Your task to perform on an android device: Toggle the flashlight Image 0: 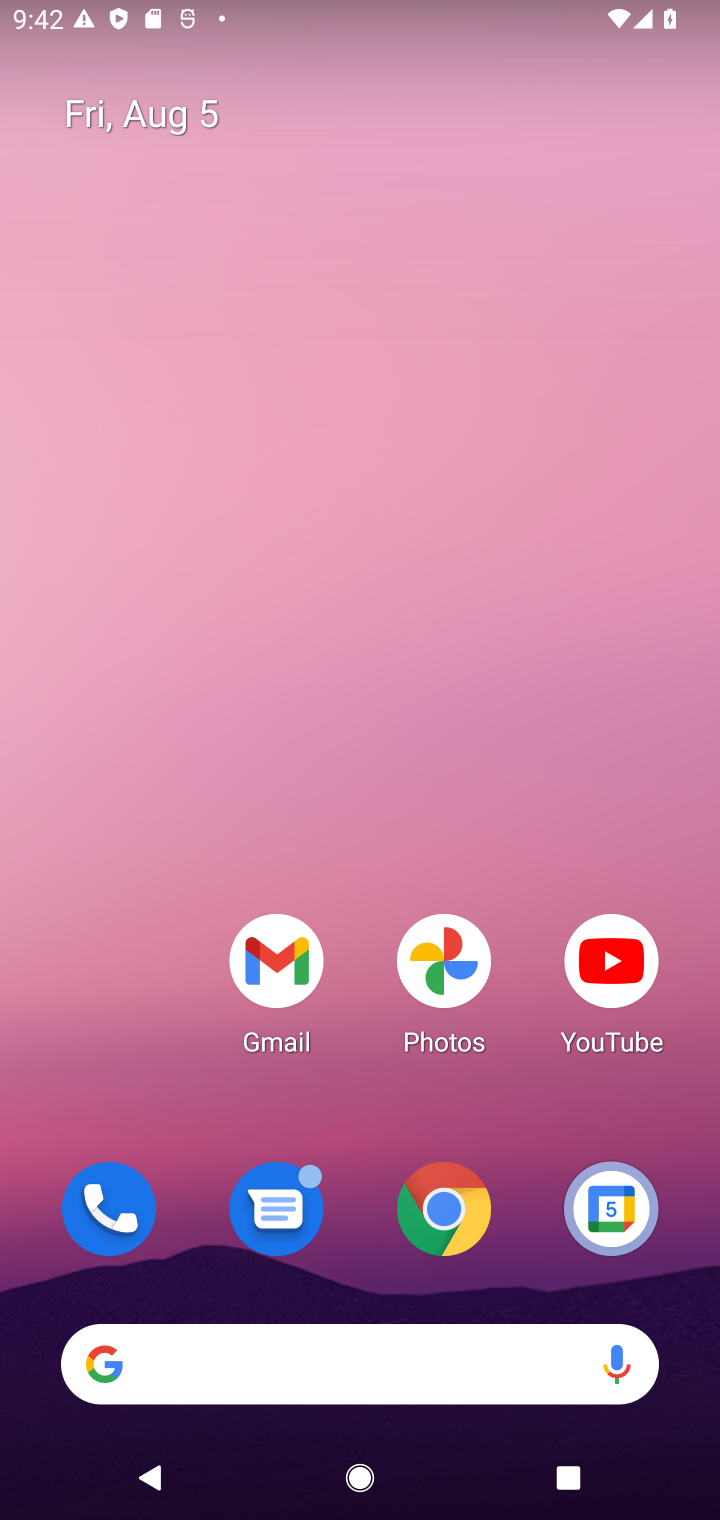
Step 0: drag from (376, 1210) to (676, 372)
Your task to perform on an android device: Toggle the flashlight Image 1: 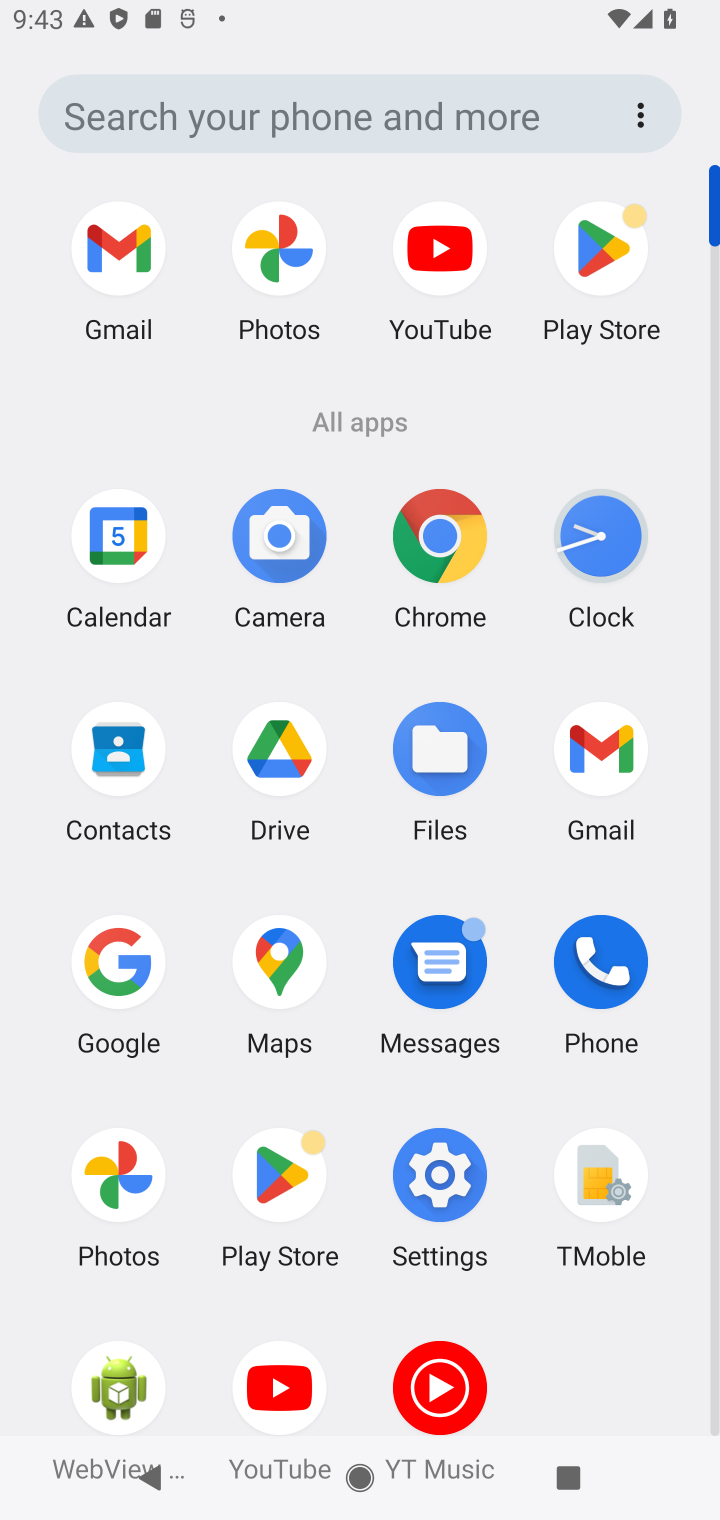
Step 1: click (448, 1186)
Your task to perform on an android device: Toggle the flashlight Image 2: 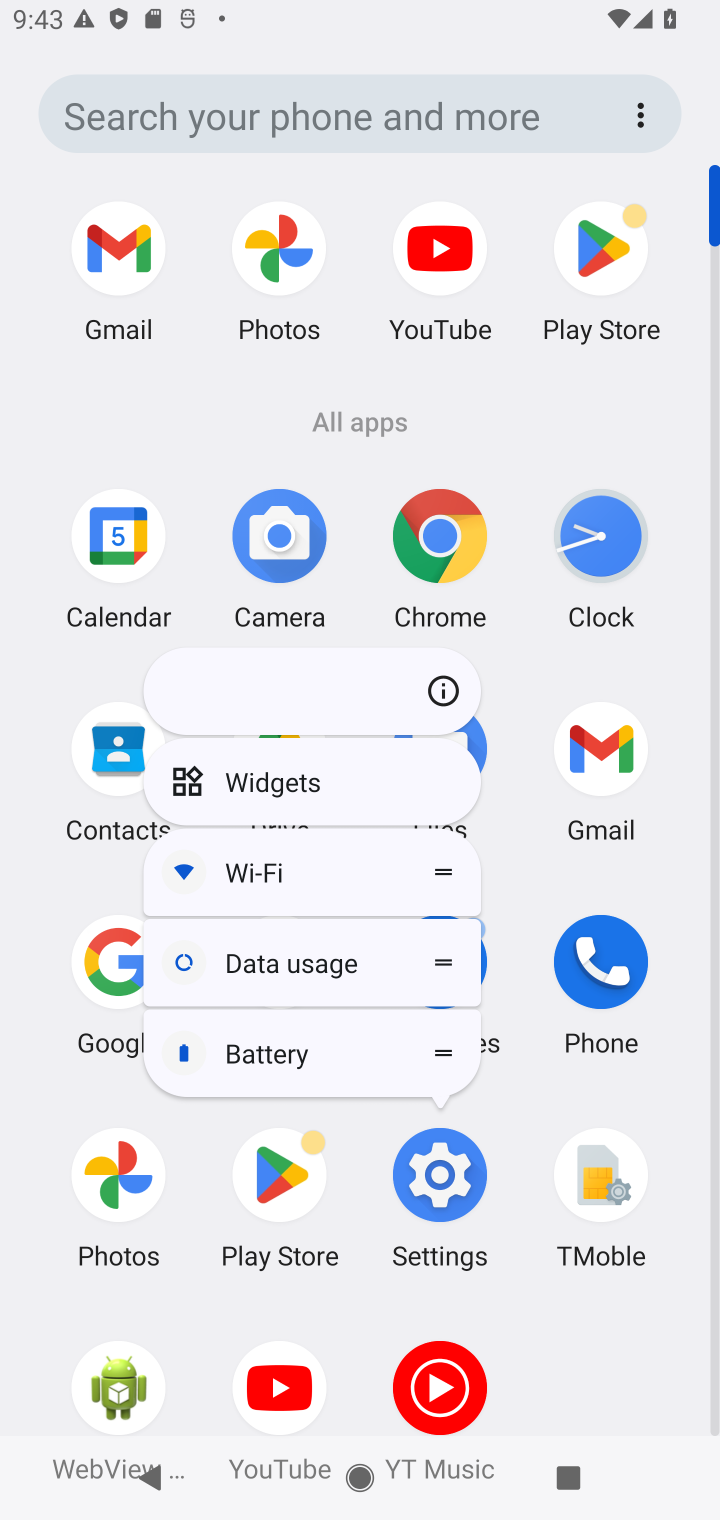
Step 2: click (444, 692)
Your task to perform on an android device: Toggle the flashlight Image 3: 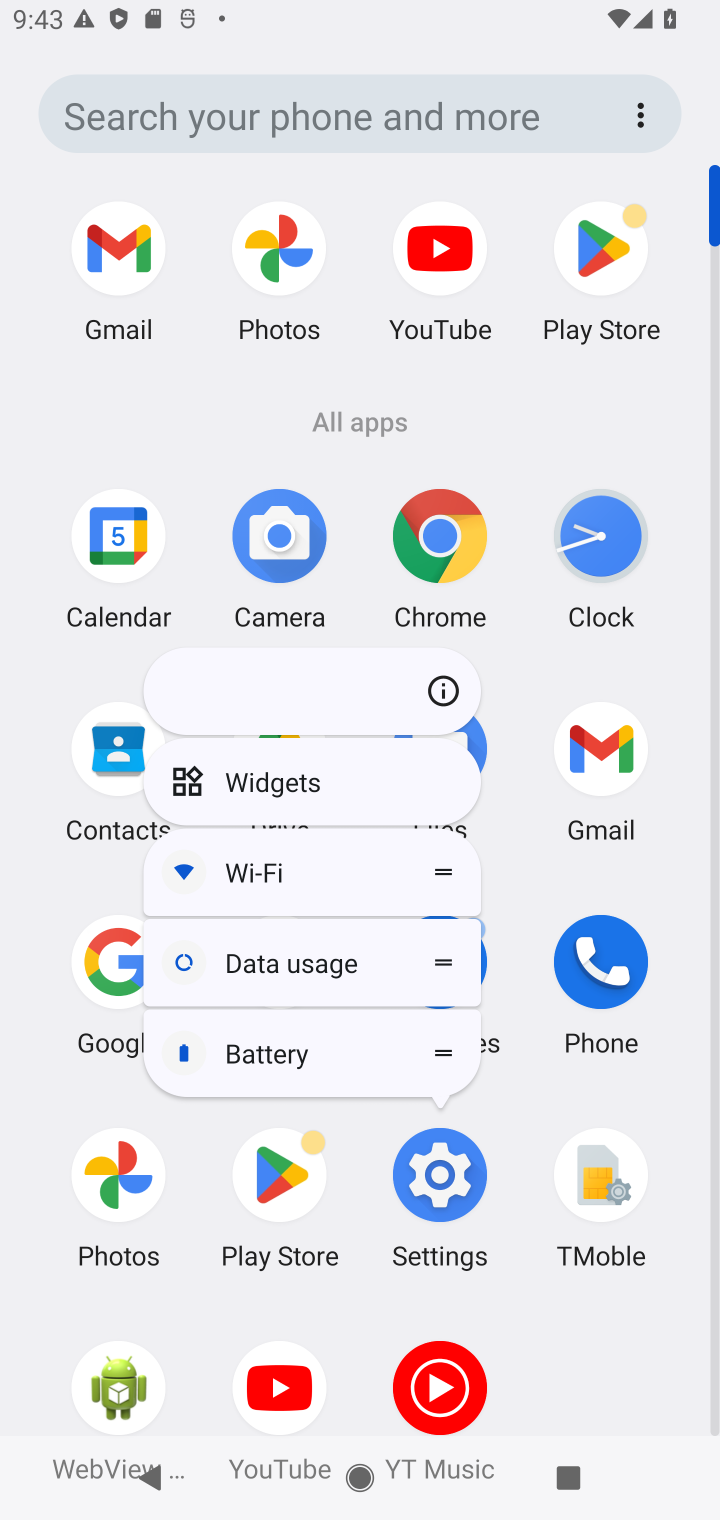
Step 3: click (458, 680)
Your task to perform on an android device: Toggle the flashlight Image 4: 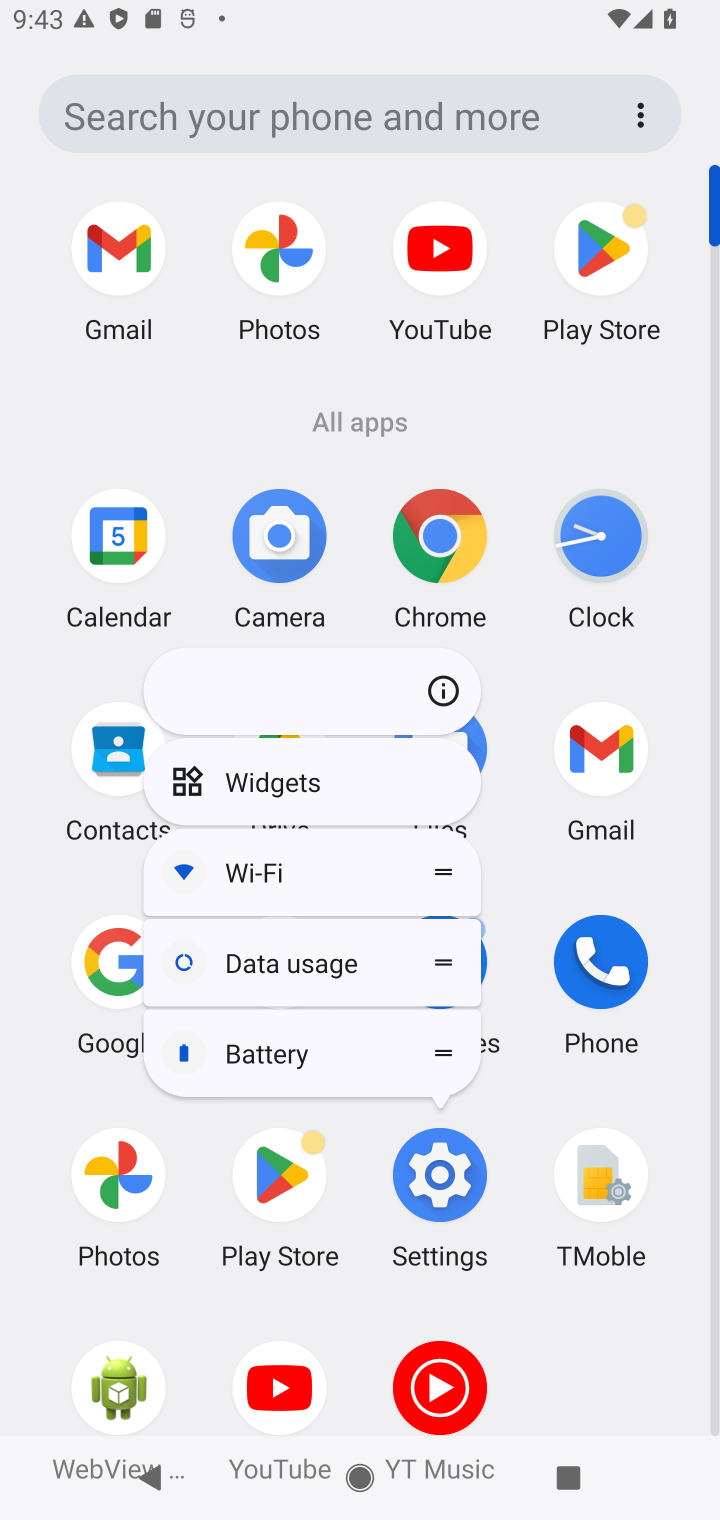
Step 4: click (436, 1150)
Your task to perform on an android device: Toggle the flashlight Image 5: 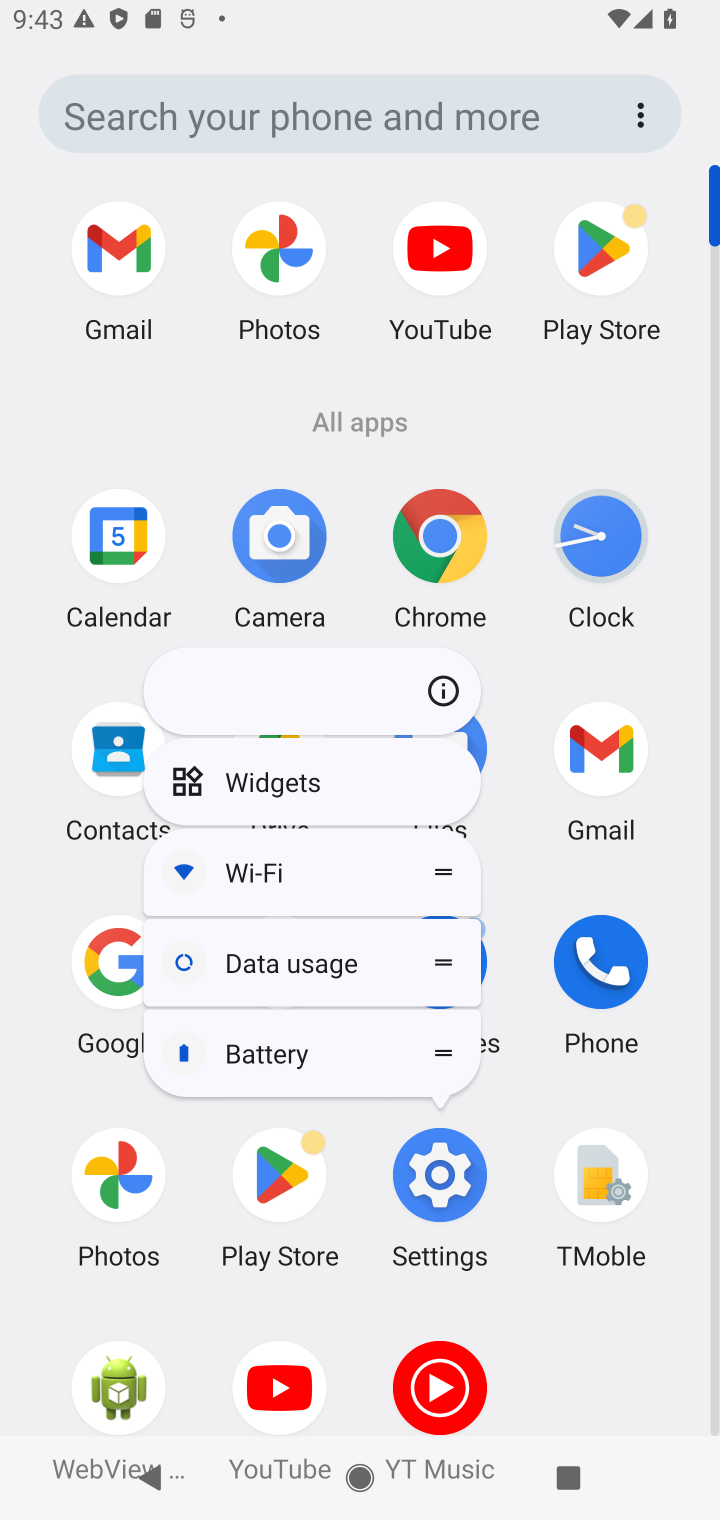
Step 5: click (453, 679)
Your task to perform on an android device: Toggle the flashlight Image 6: 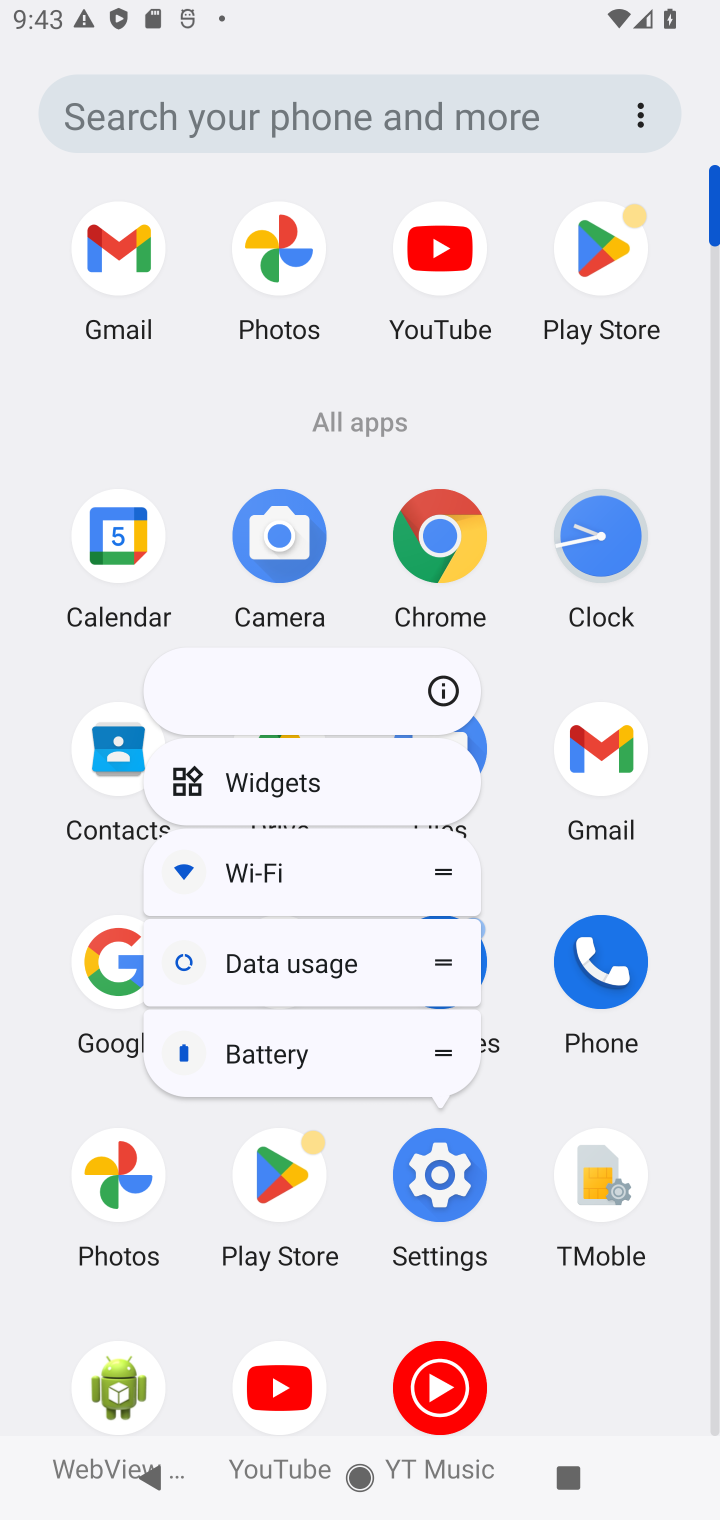
Step 6: click (434, 711)
Your task to perform on an android device: Toggle the flashlight Image 7: 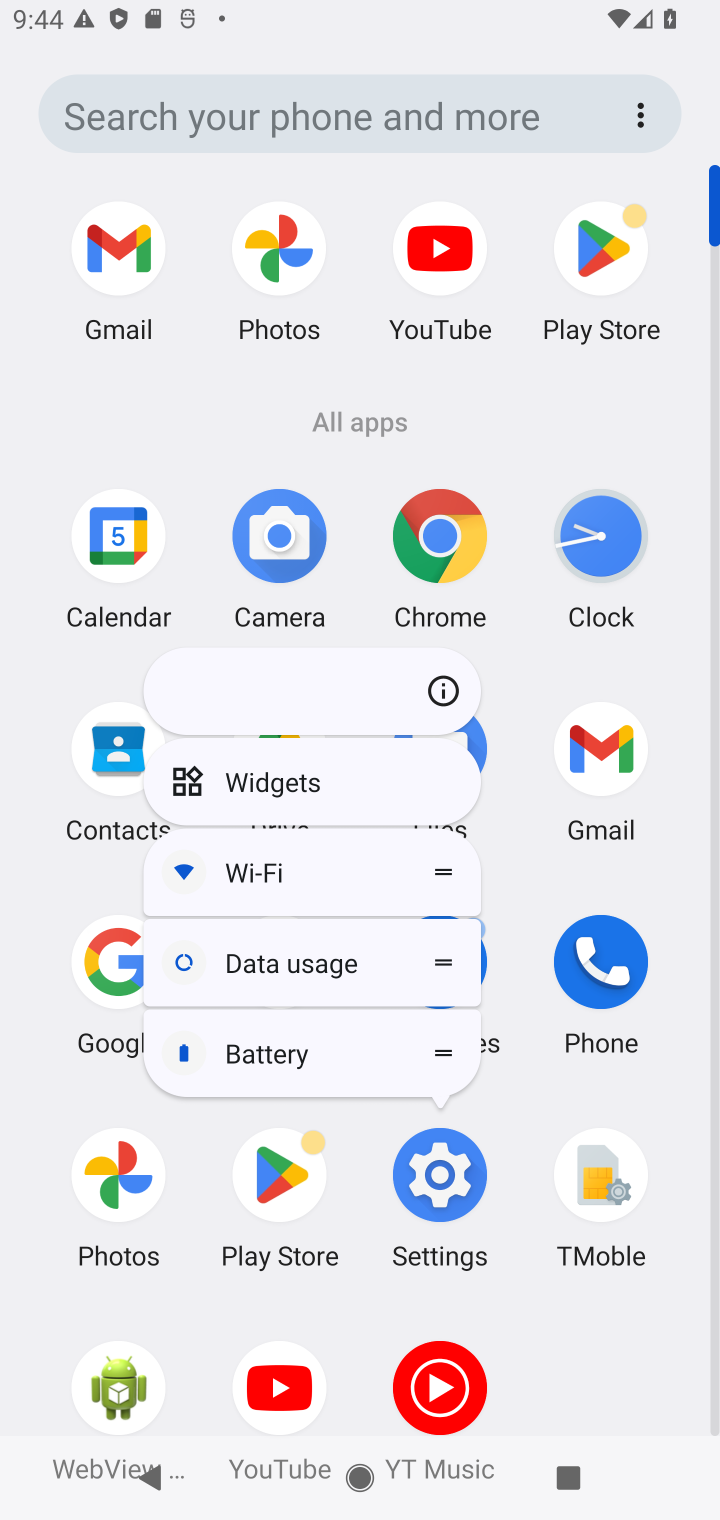
Step 7: click (437, 665)
Your task to perform on an android device: Toggle the flashlight Image 8: 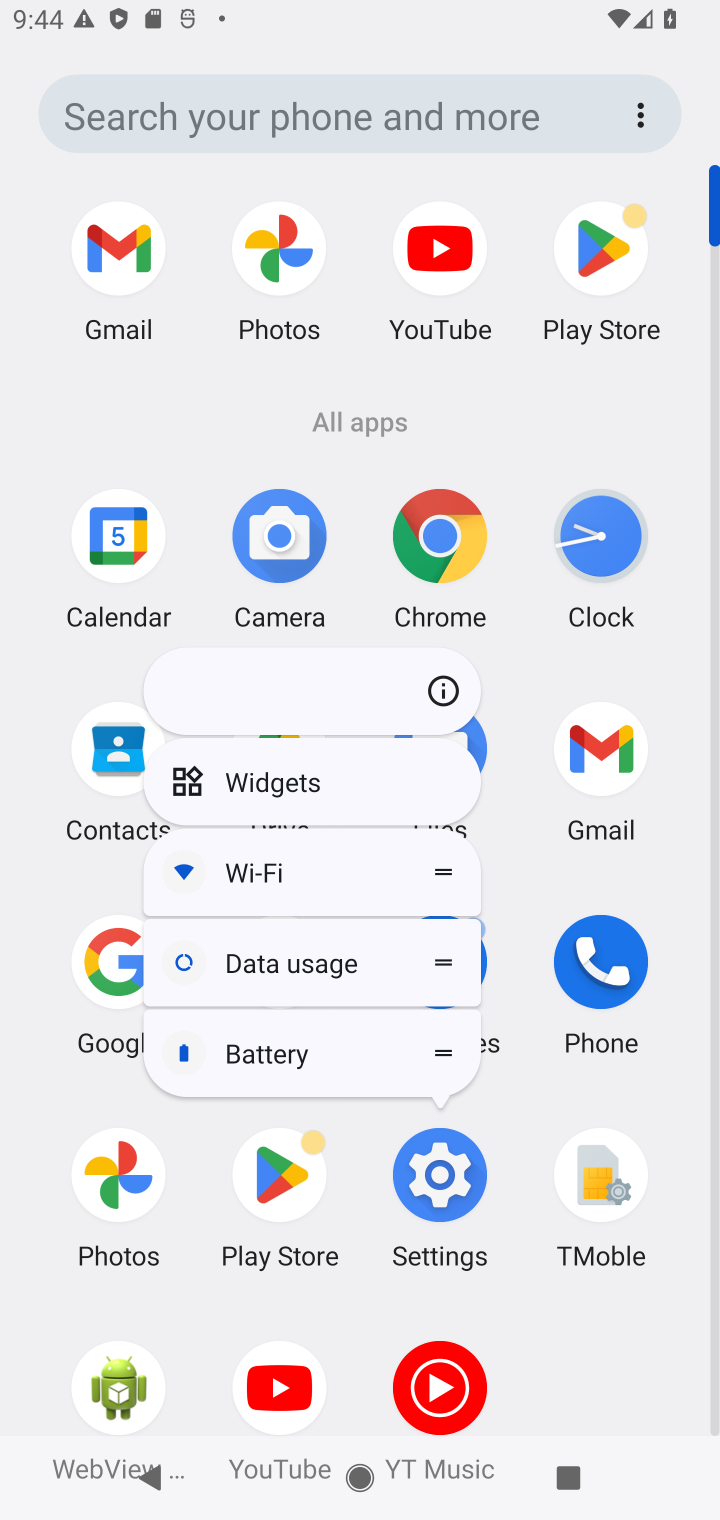
Step 8: click (457, 698)
Your task to perform on an android device: Toggle the flashlight Image 9: 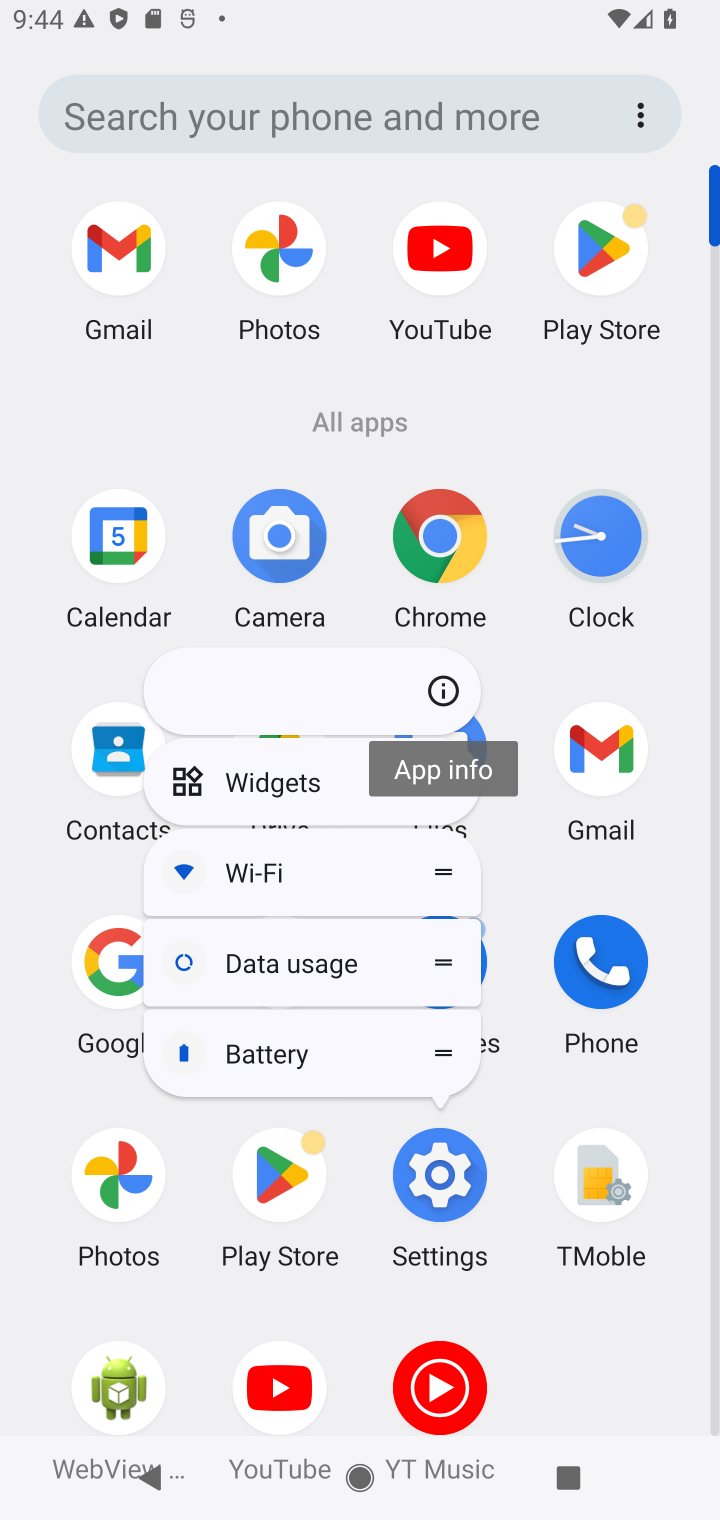
Step 9: click (447, 681)
Your task to perform on an android device: Toggle the flashlight Image 10: 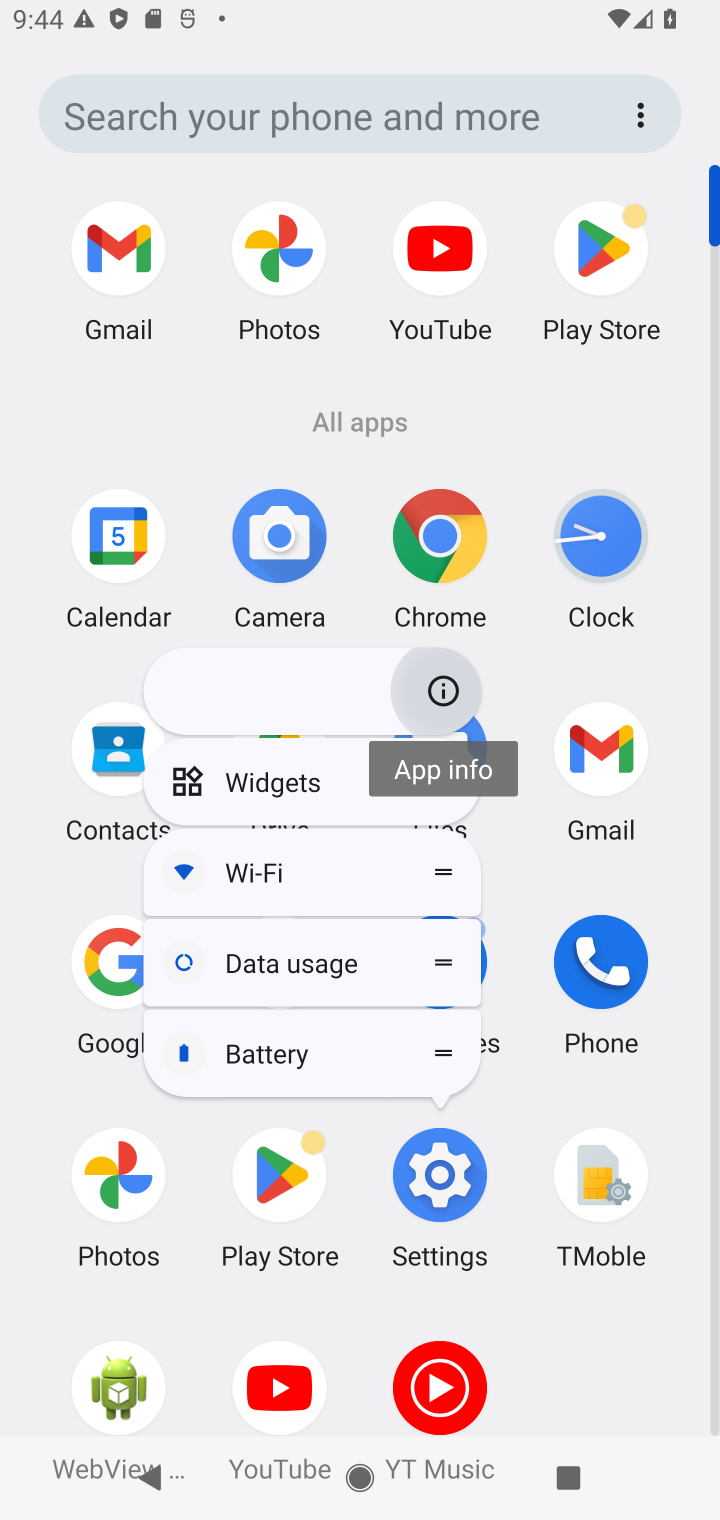
Step 10: drag from (435, 1206) to (452, 1105)
Your task to perform on an android device: Toggle the flashlight Image 11: 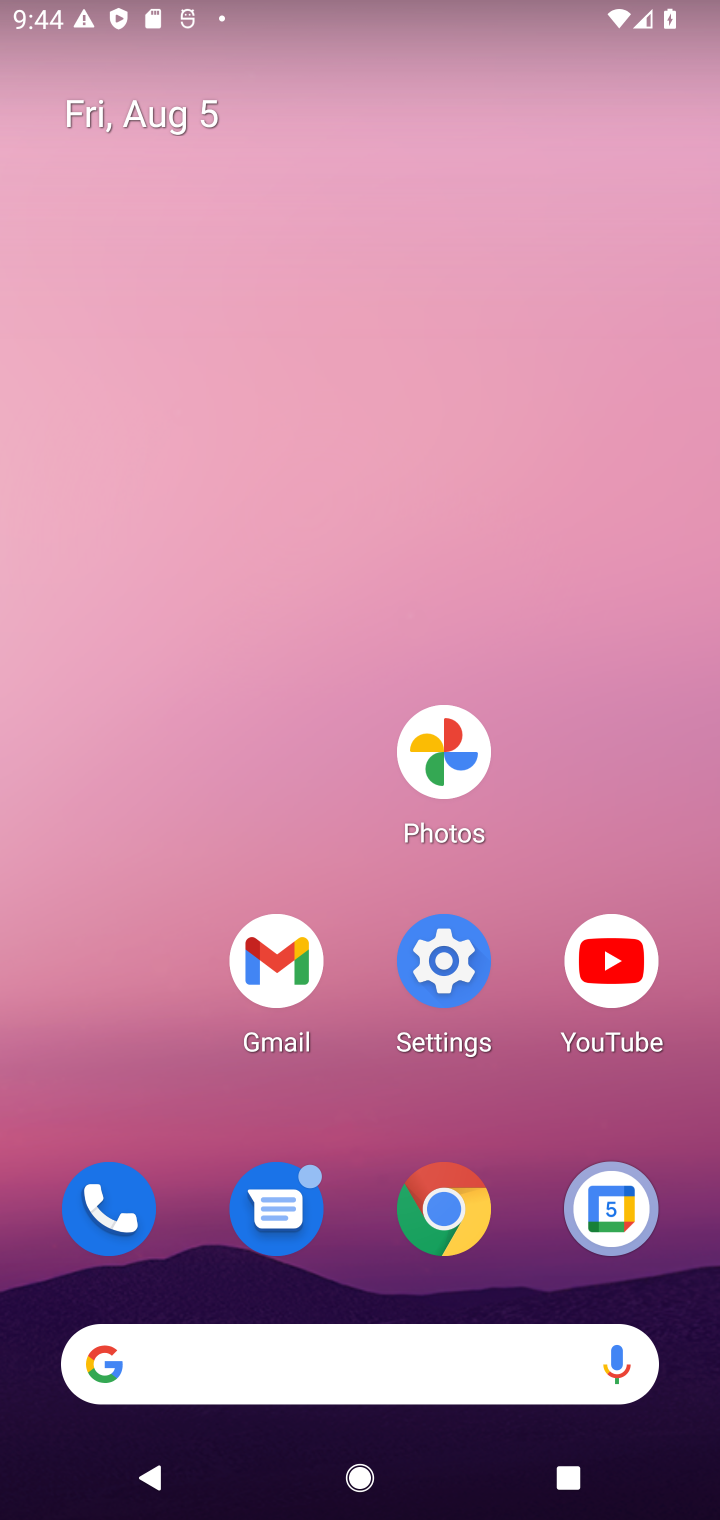
Step 11: click (425, 961)
Your task to perform on an android device: Toggle the flashlight Image 12: 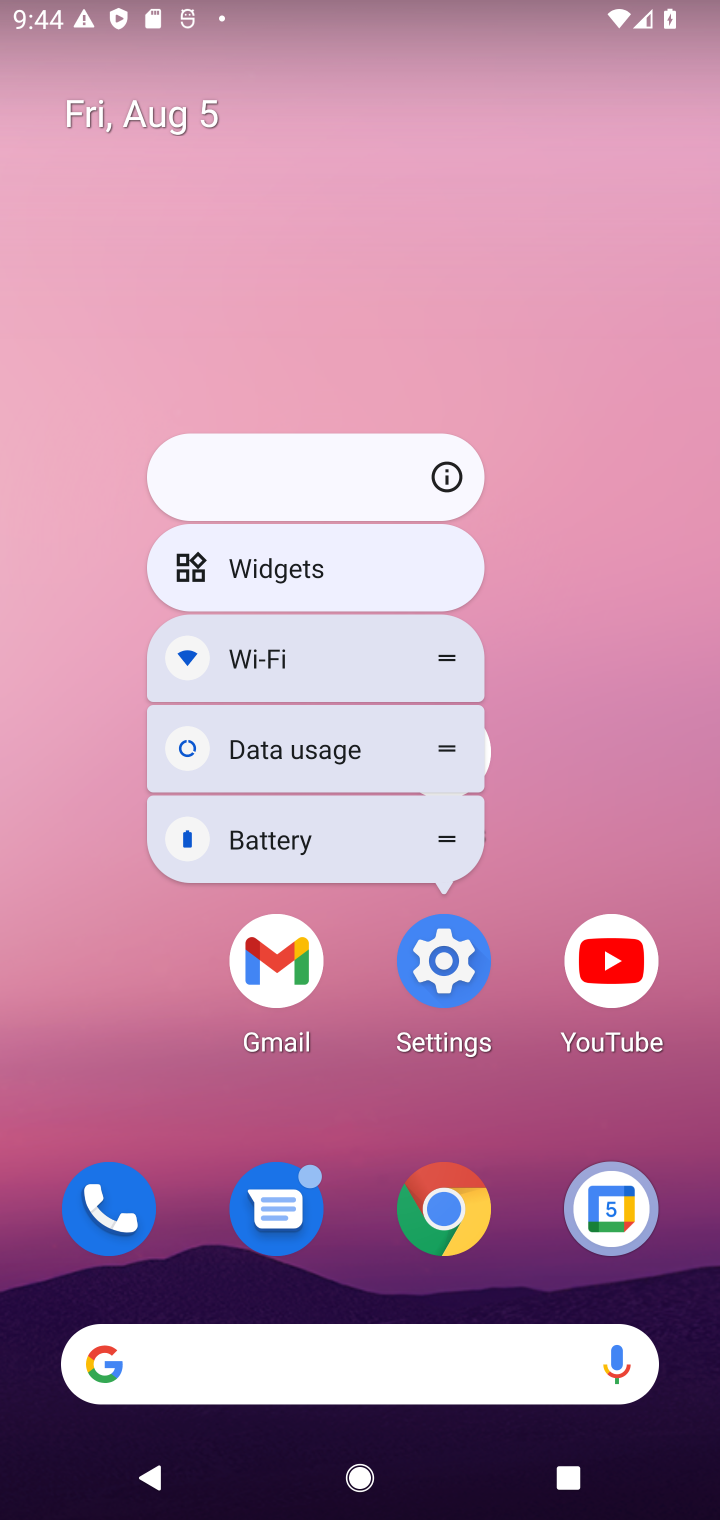
Step 12: click (448, 482)
Your task to perform on an android device: Toggle the flashlight Image 13: 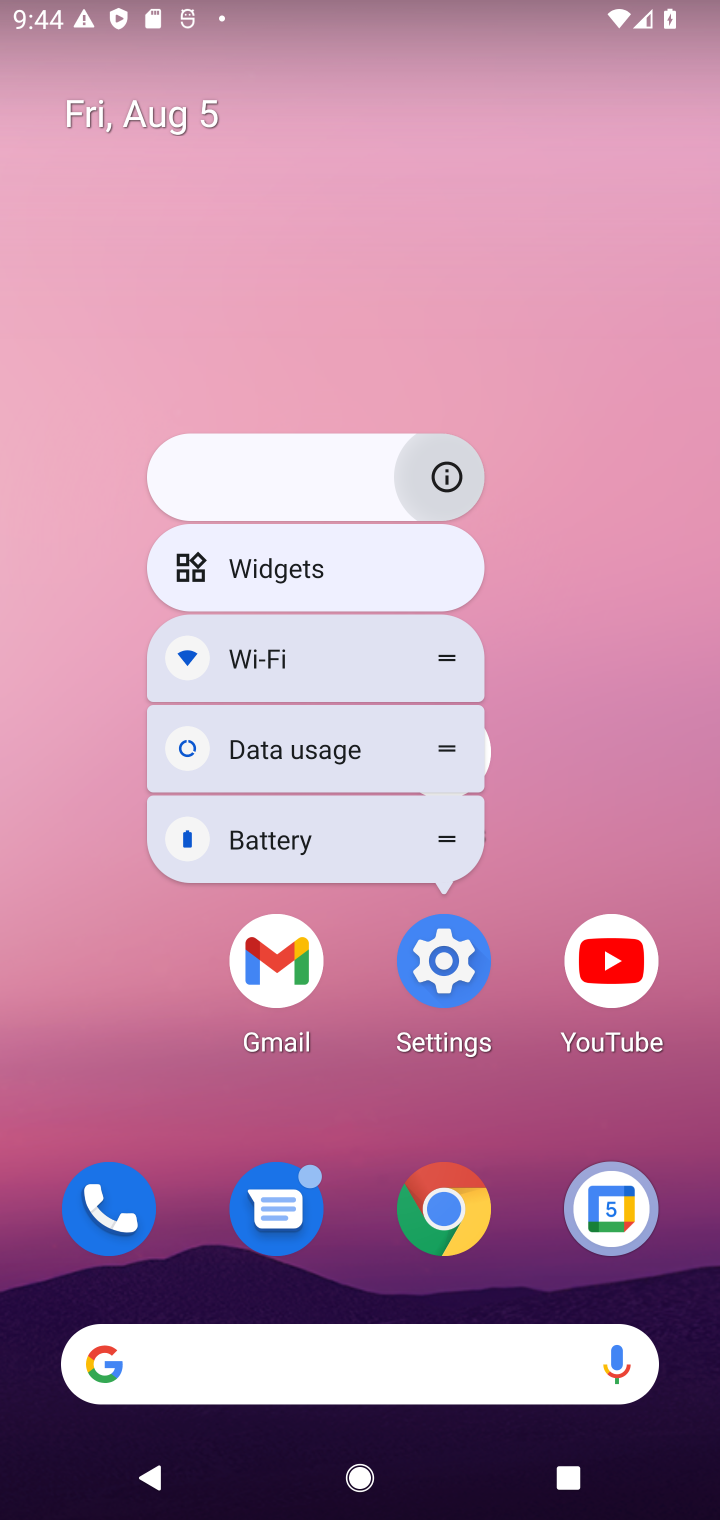
Step 13: click (448, 475)
Your task to perform on an android device: Toggle the flashlight Image 14: 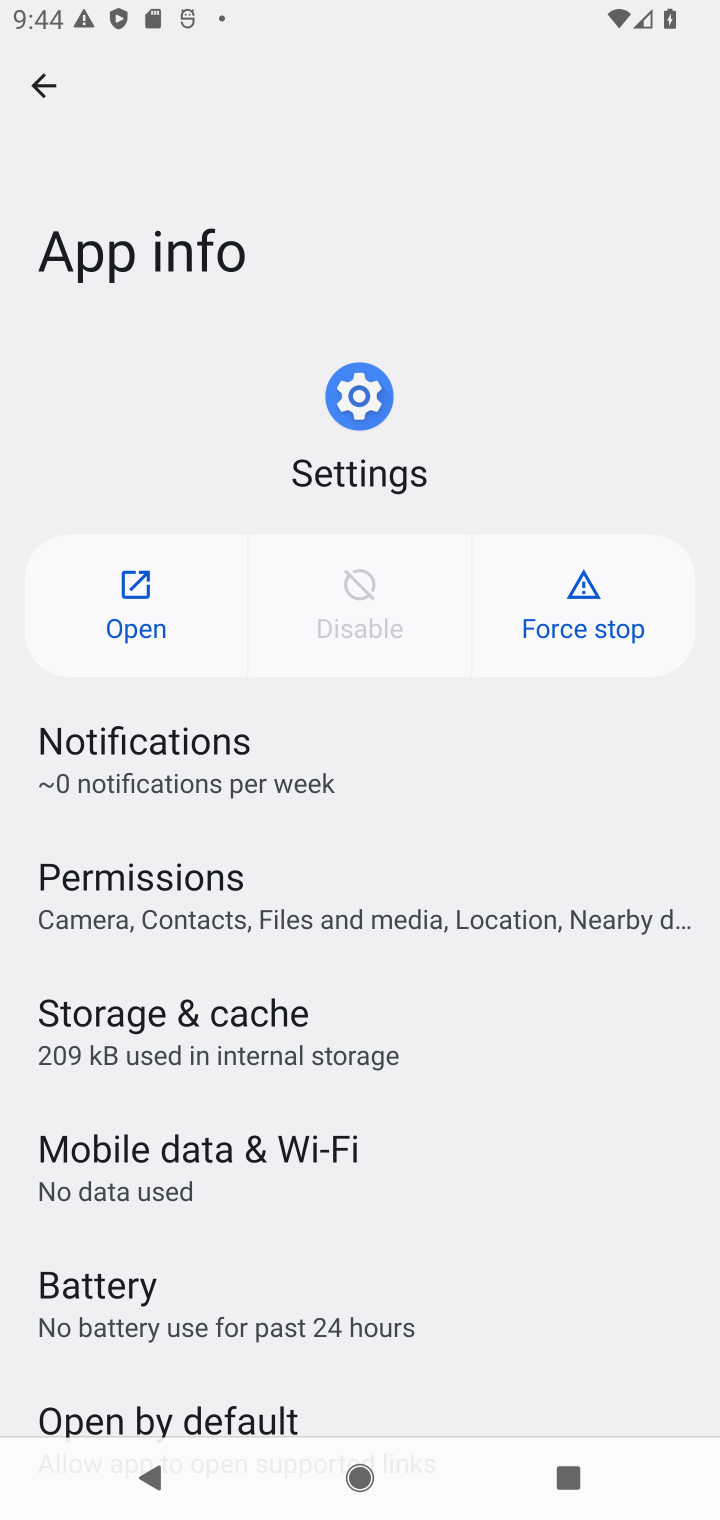
Step 14: click (140, 589)
Your task to perform on an android device: Toggle the flashlight Image 15: 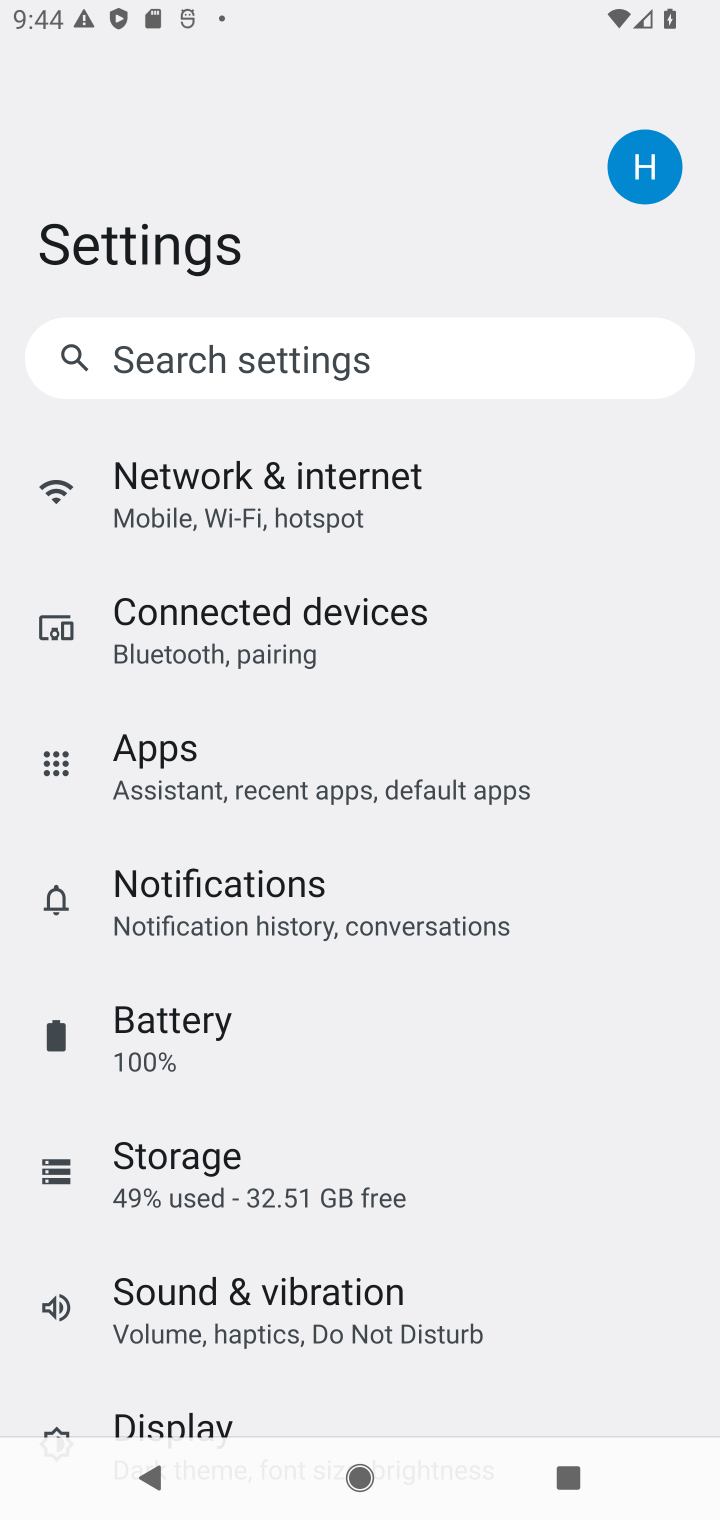
Step 15: click (225, 358)
Your task to perform on an android device: Toggle the flashlight Image 16: 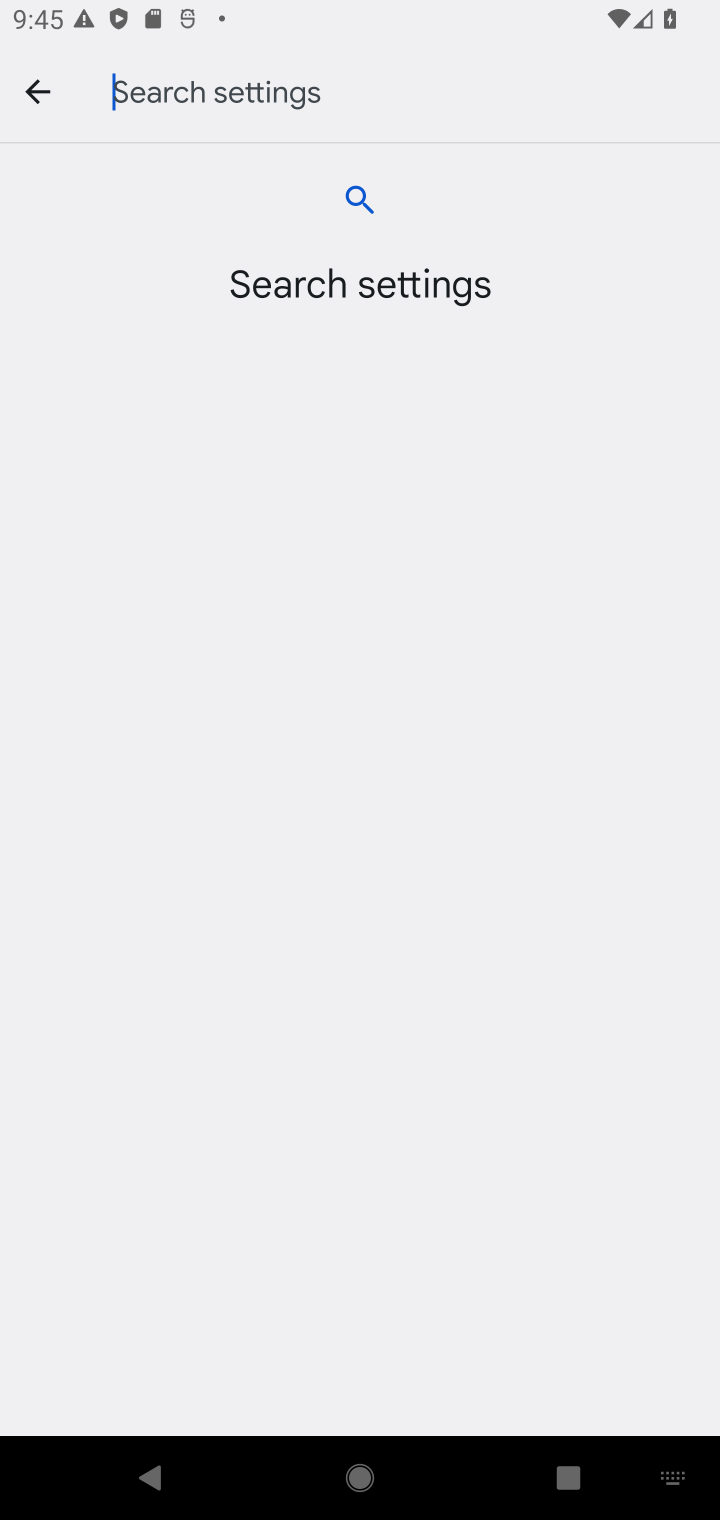
Step 16: type "flashlight"
Your task to perform on an android device: Toggle the flashlight Image 17: 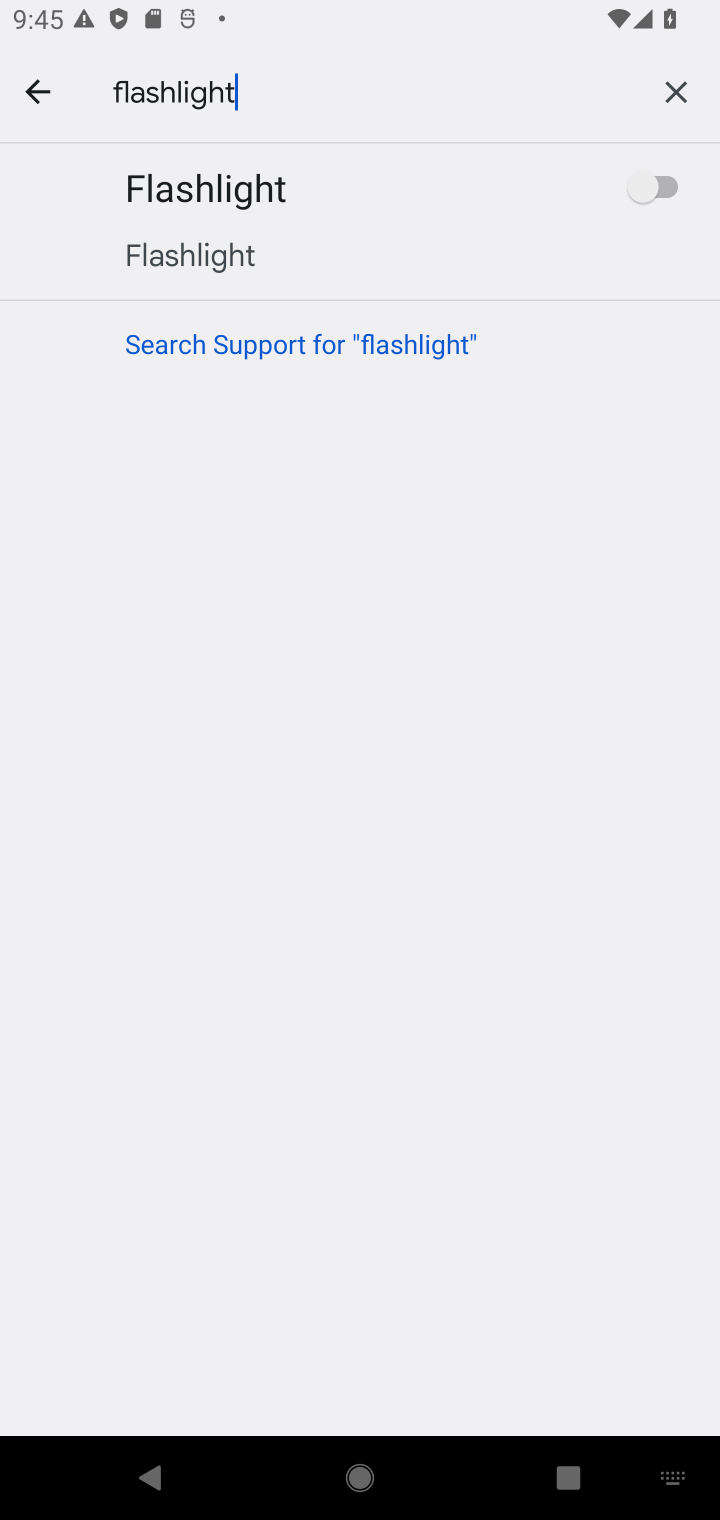
Step 17: click (200, 117)
Your task to perform on an android device: Toggle the flashlight Image 18: 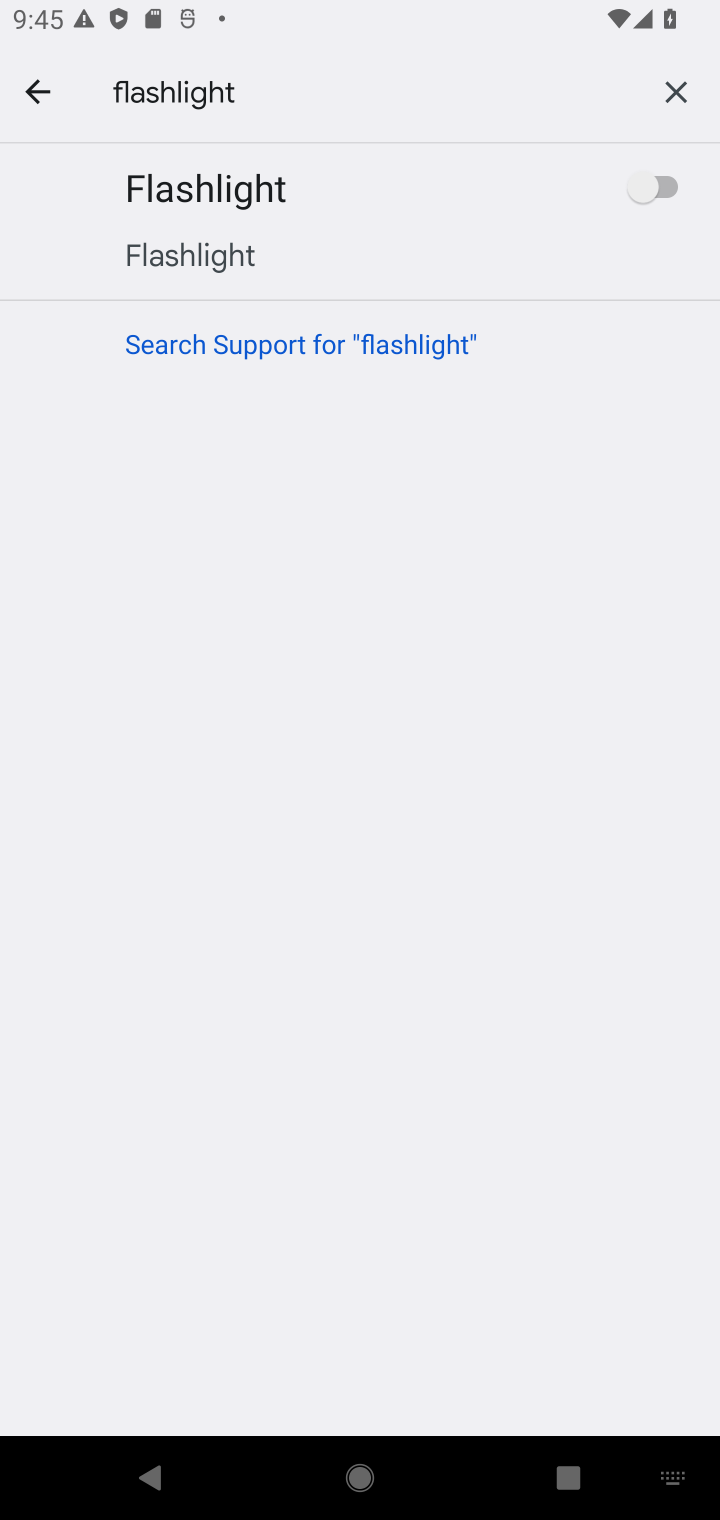
Step 18: drag from (331, 724) to (325, 556)
Your task to perform on an android device: Toggle the flashlight Image 19: 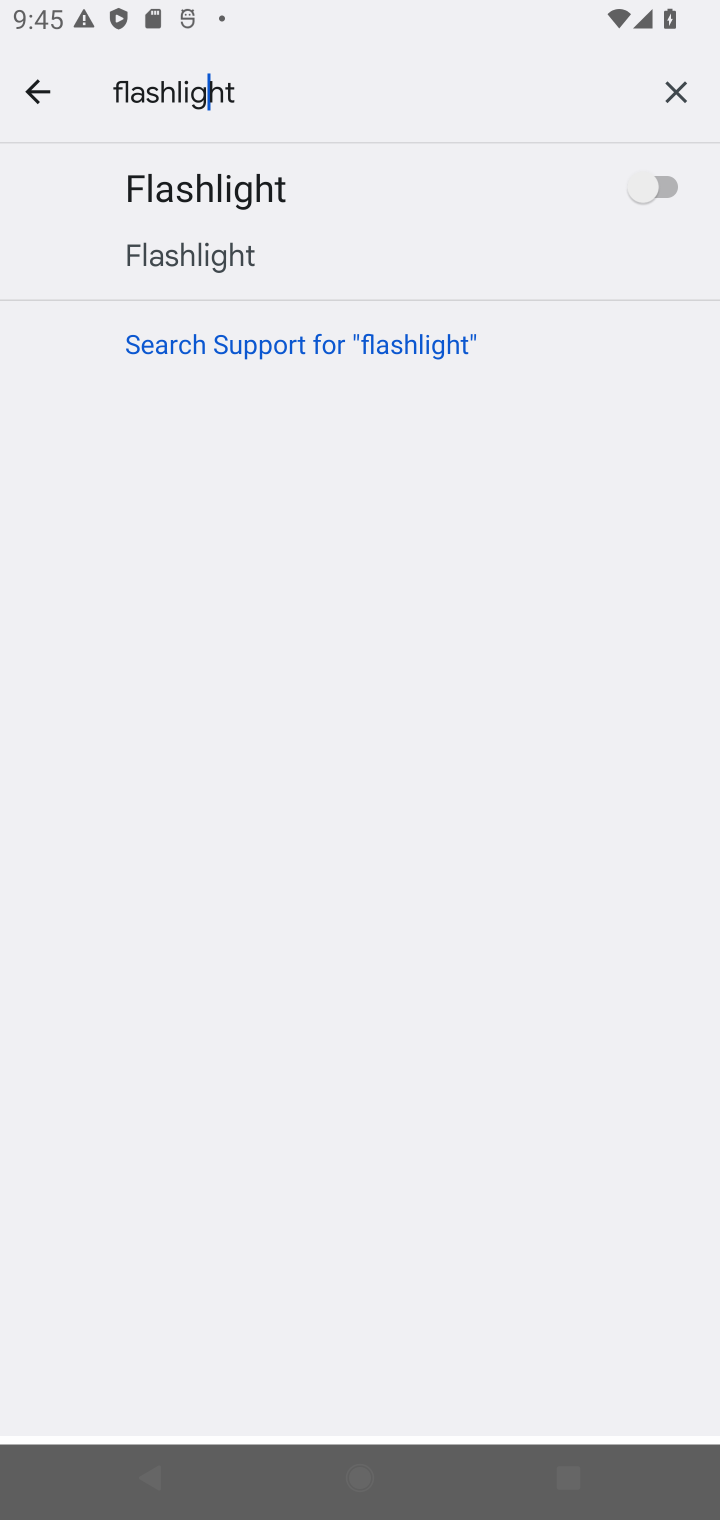
Step 19: click (172, 179)
Your task to perform on an android device: Toggle the flashlight Image 20: 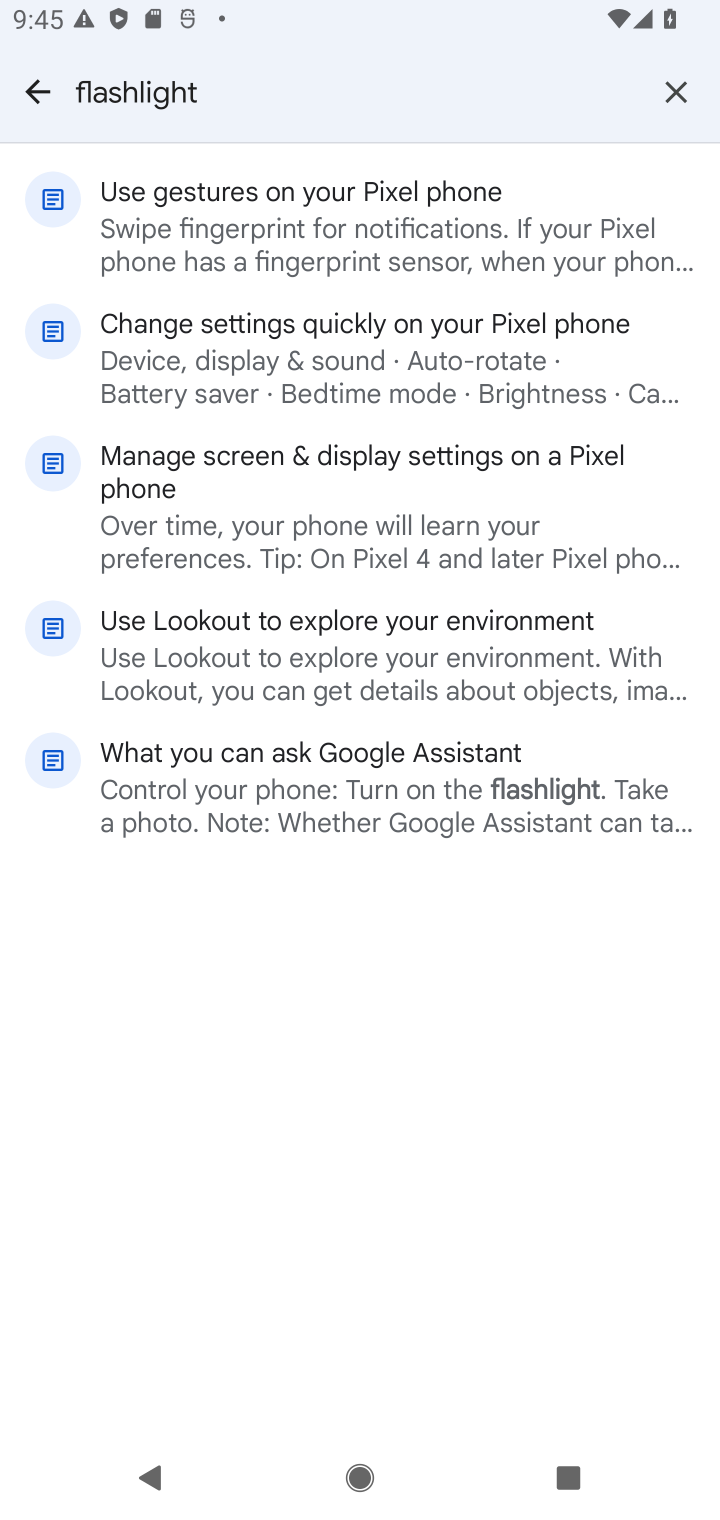
Step 20: drag from (312, 715) to (354, 214)
Your task to perform on an android device: Toggle the flashlight Image 21: 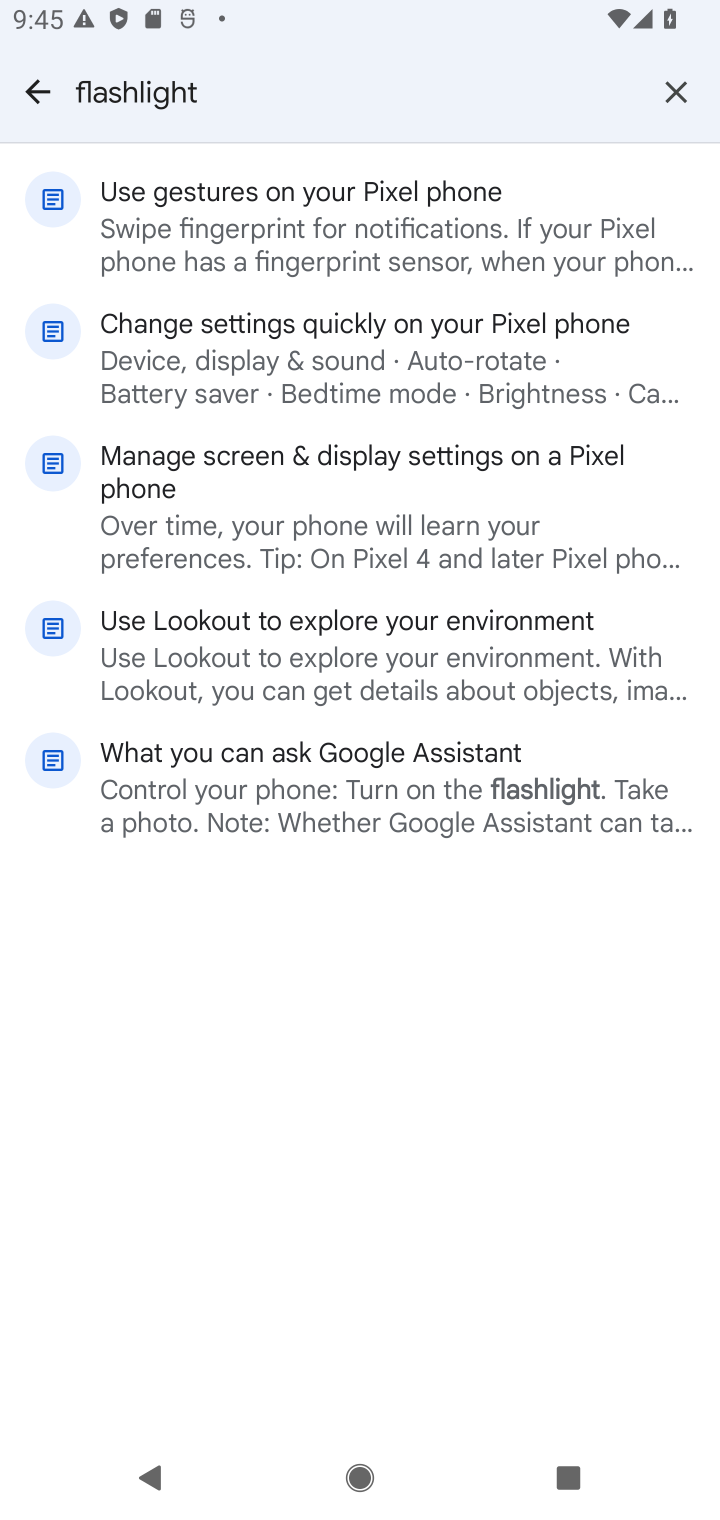
Step 21: drag from (361, 554) to (410, 1469)
Your task to perform on an android device: Toggle the flashlight Image 22: 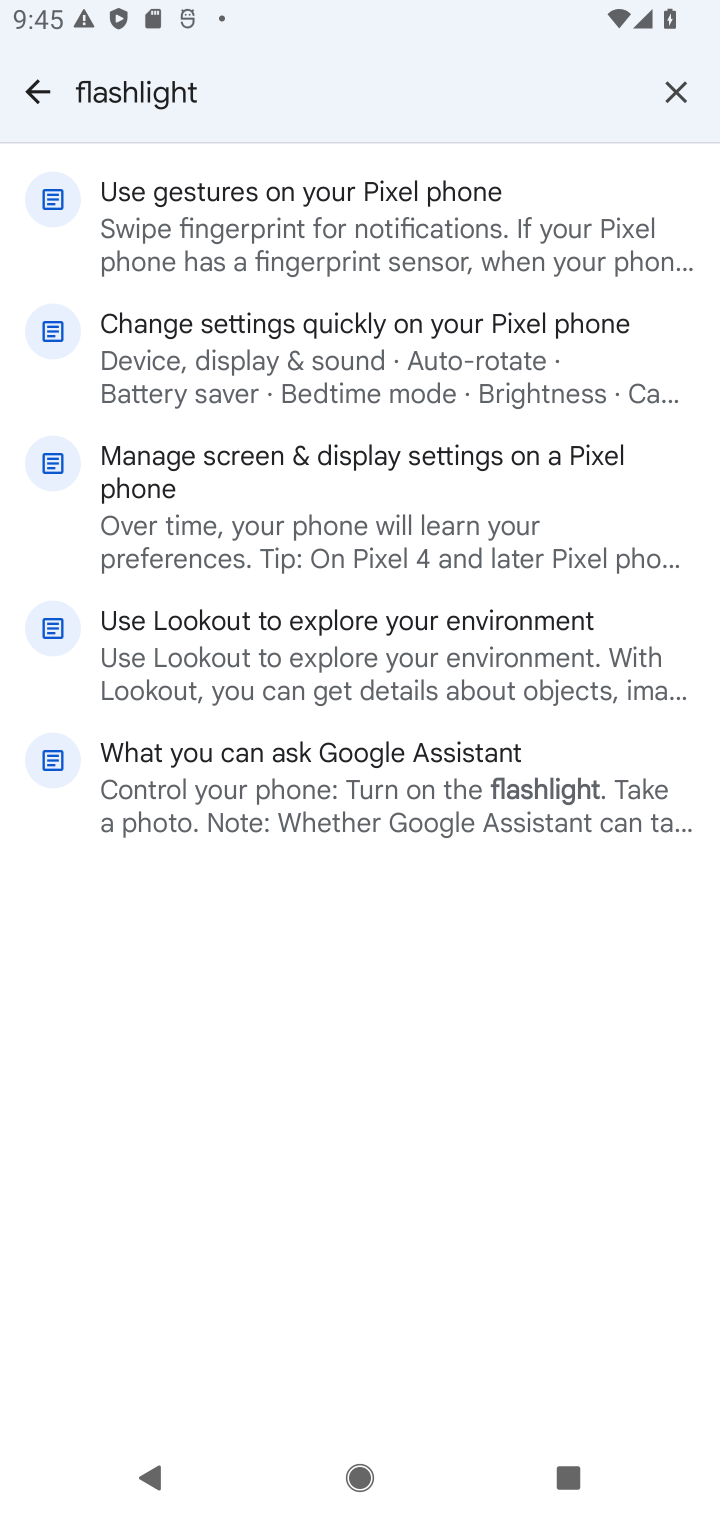
Step 22: click (58, 98)
Your task to perform on an android device: Toggle the flashlight Image 23: 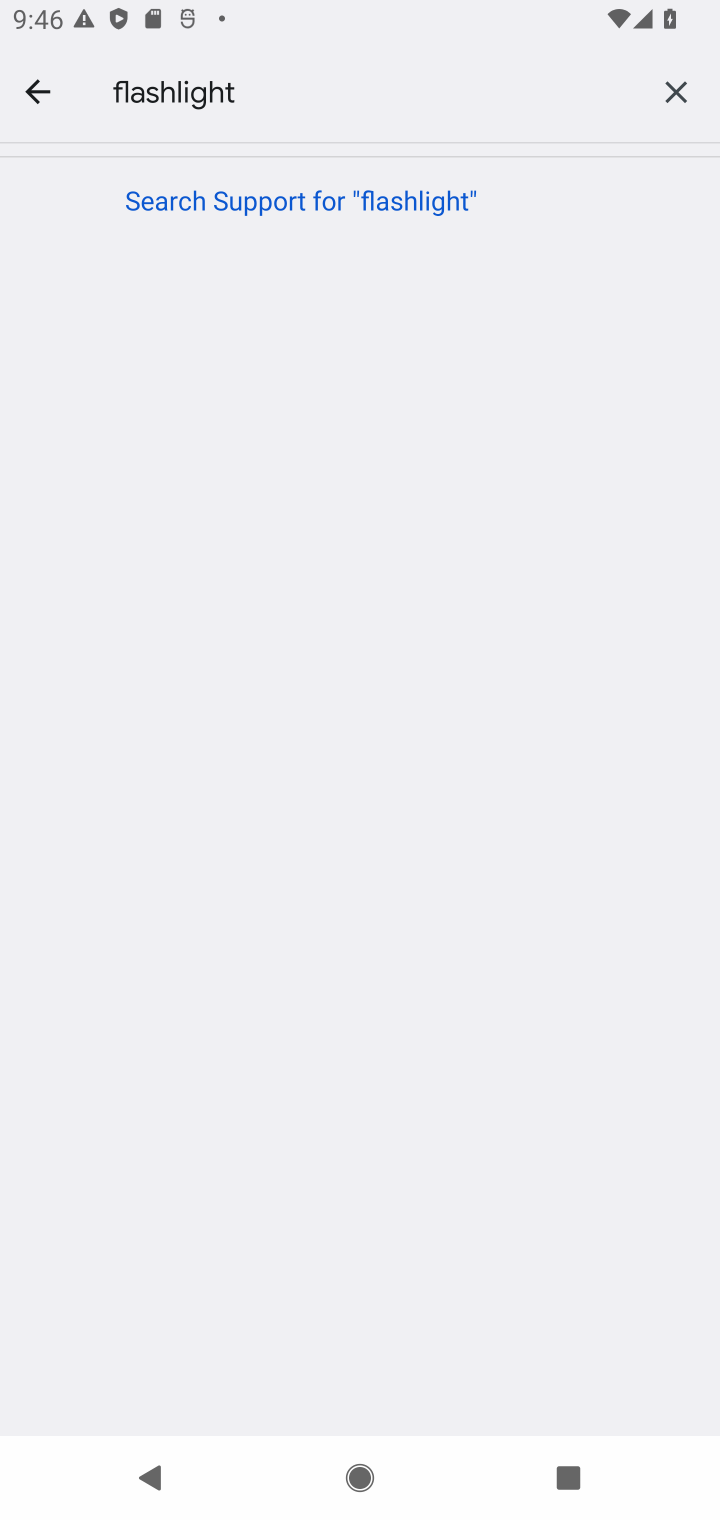
Step 23: drag from (296, 1027) to (296, 630)
Your task to perform on an android device: Toggle the flashlight Image 24: 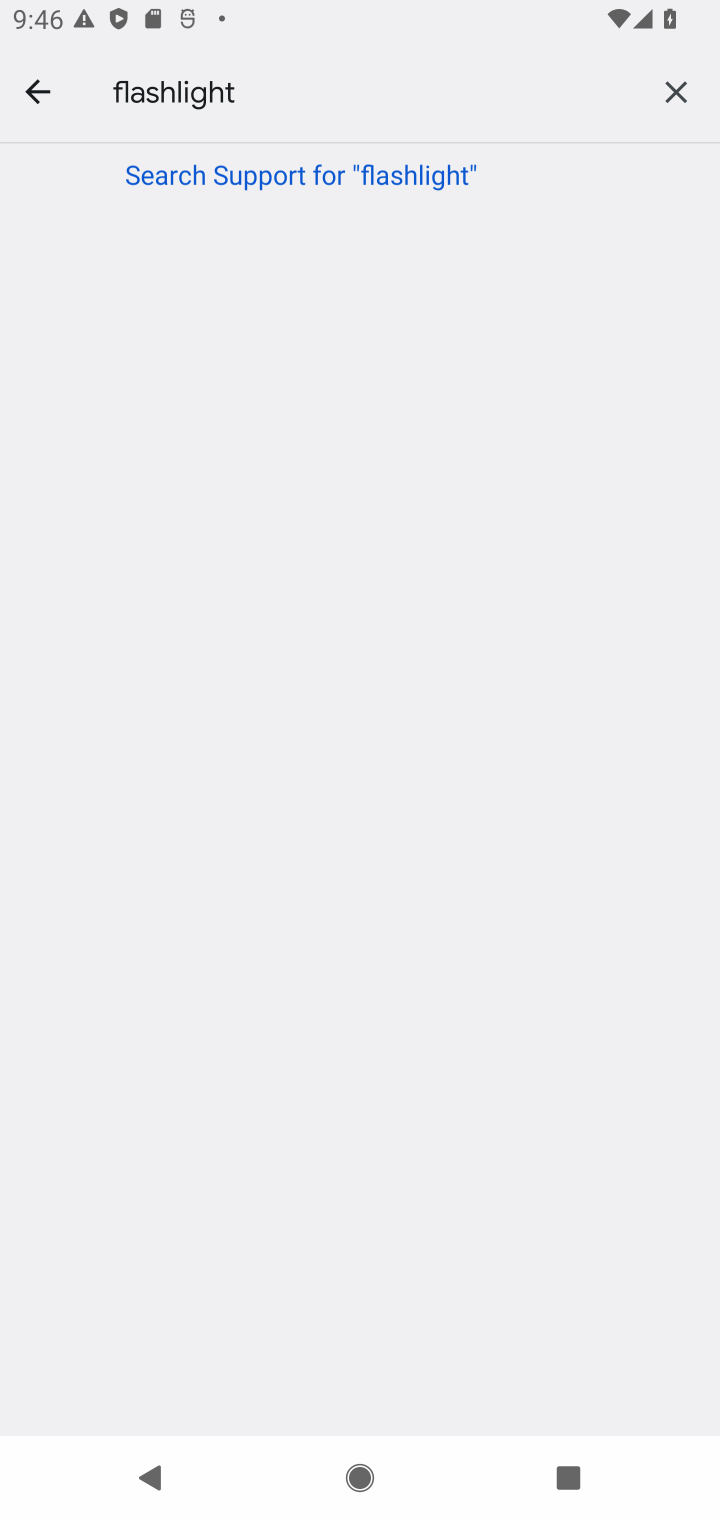
Step 24: click (651, 1168)
Your task to perform on an android device: Toggle the flashlight Image 25: 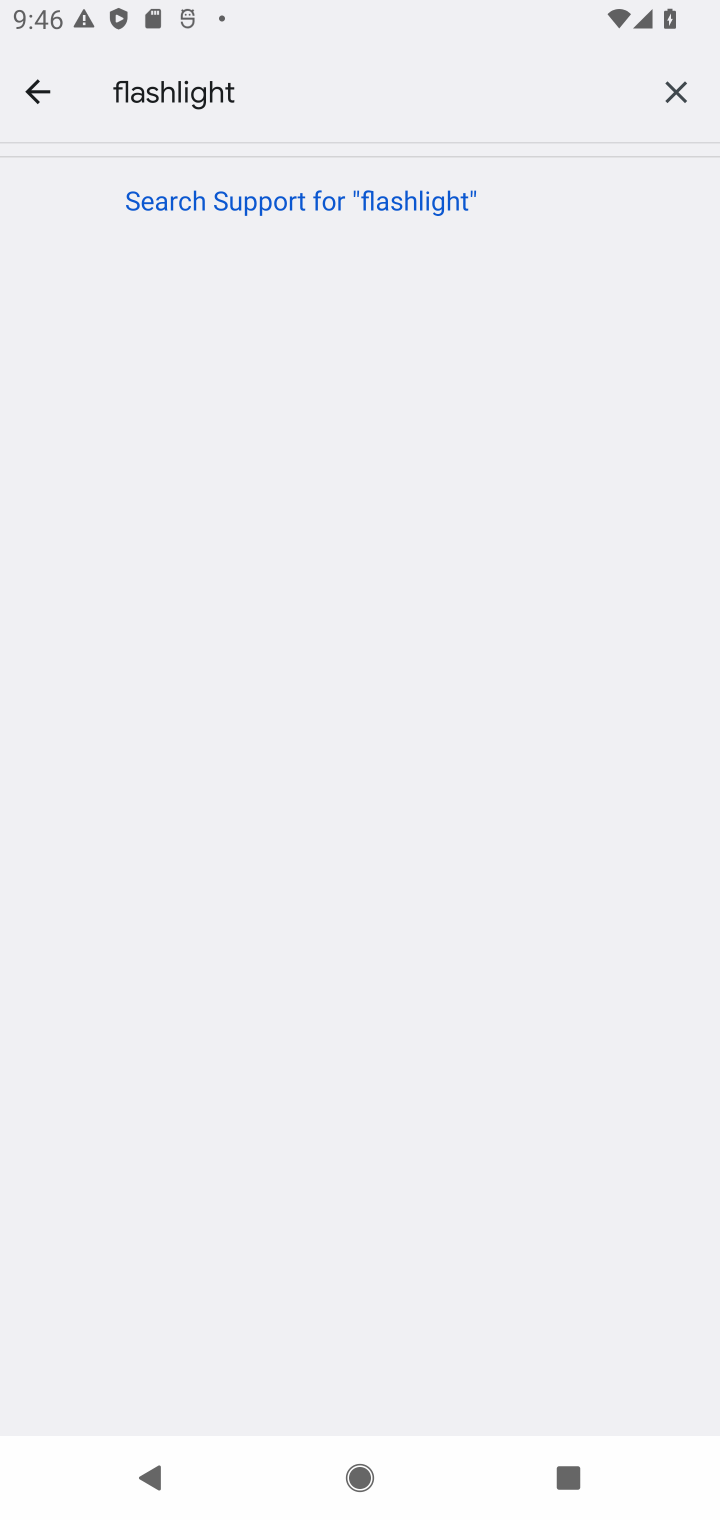
Step 25: task complete